Your task to perform on an android device: What is the recent news? Image 0: 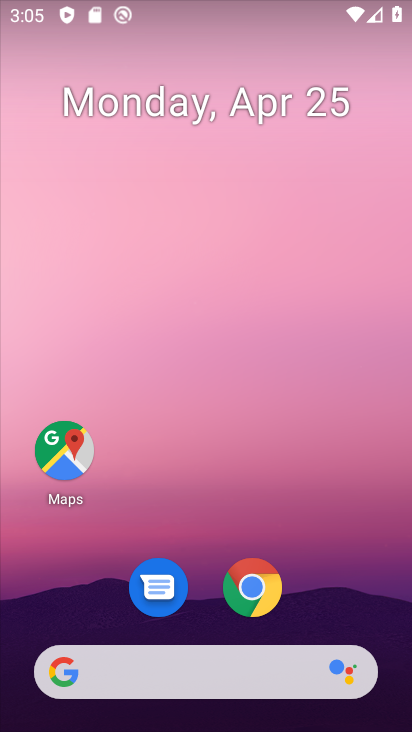
Step 0: click (247, 584)
Your task to perform on an android device: What is the recent news? Image 1: 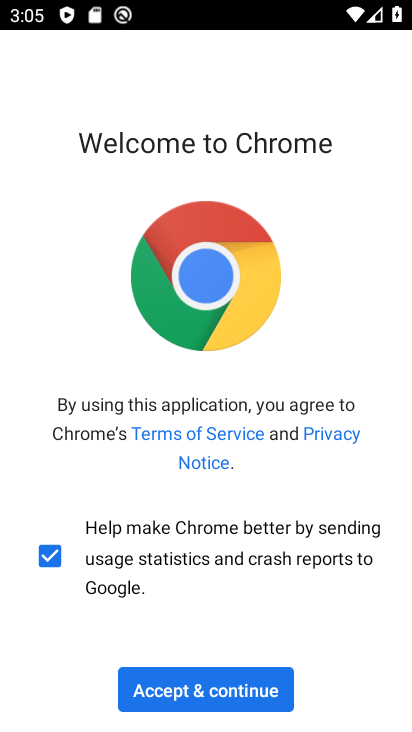
Step 1: click (226, 700)
Your task to perform on an android device: What is the recent news? Image 2: 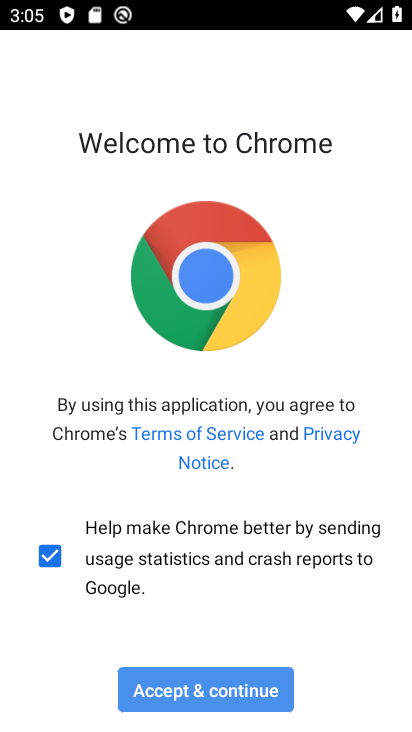
Step 2: click (368, 701)
Your task to perform on an android device: What is the recent news? Image 3: 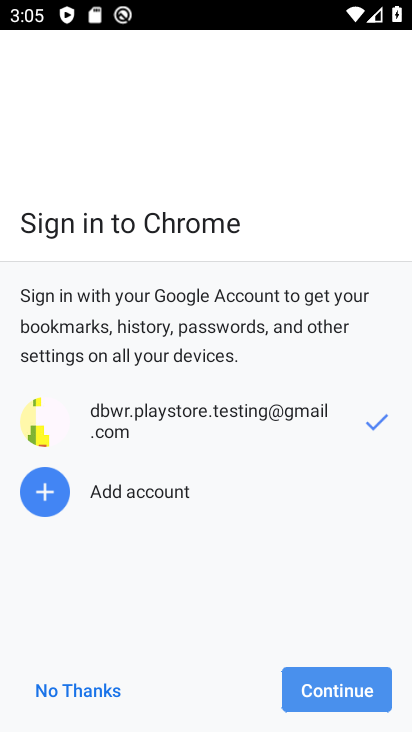
Step 3: click (368, 701)
Your task to perform on an android device: What is the recent news? Image 4: 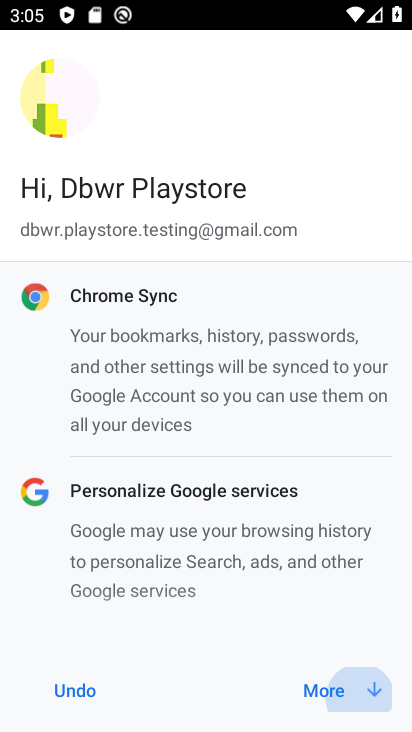
Step 4: click (368, 701)
Your task to perform on an android device: What is the recent news? Image 5: 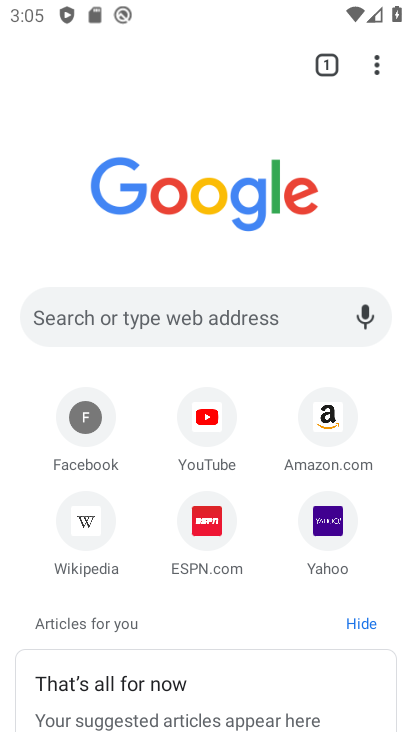
Step 5: click (151, 324)
Your task to perform on an android device: What is the recent news? Image 6: 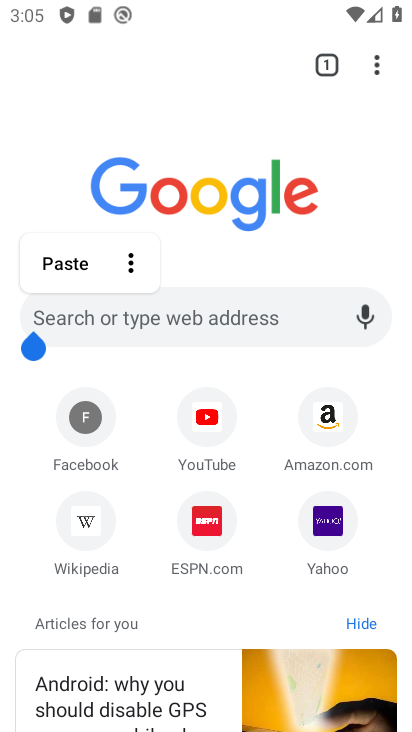
Step 6: click (132, 324)
Your task to perform on an android device: What is the recent news? Image 7: 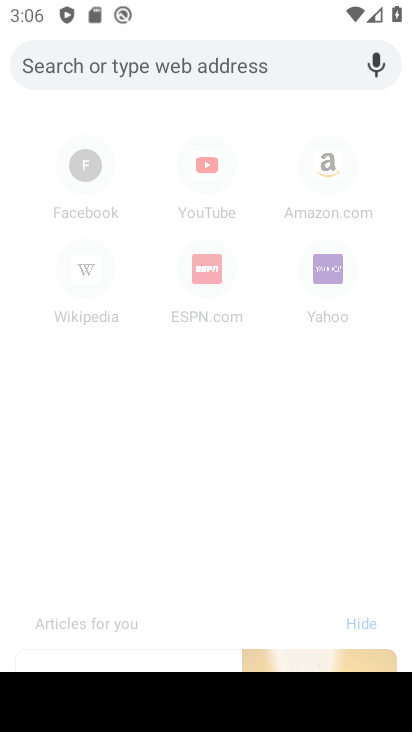
Step 7: type "What is the recent news?"
Your task to perform on an android device: What is the recent news? Image 8: 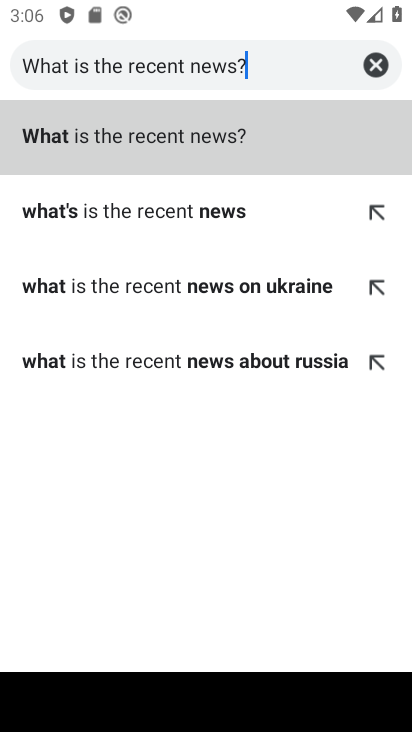
Step 8: type ""
Your task to perform on an android device: What is the recent news? Image 9: 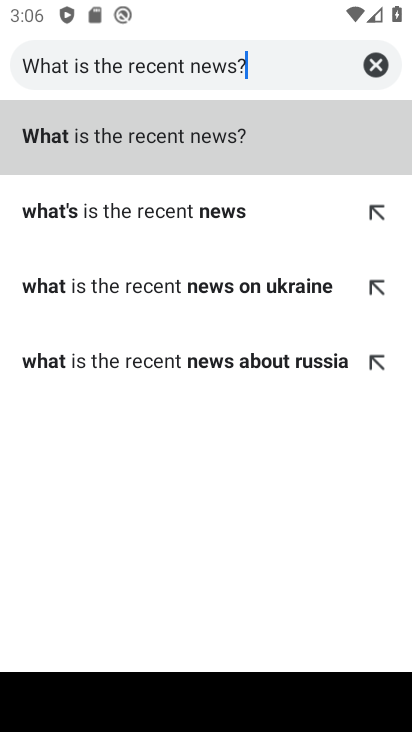
Step 9: click (201, 218)
Your task to perform on an android device: What is the recent news? Image 10: 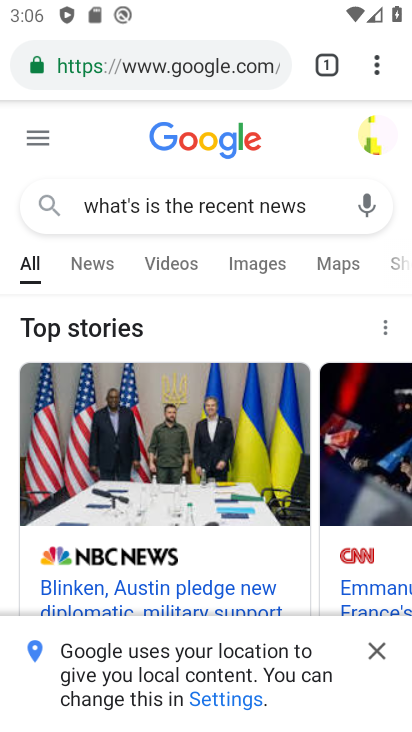
Step 10: task complete